Your task to perform on an android device: toggle notifications settings in the gmail app Image 0: 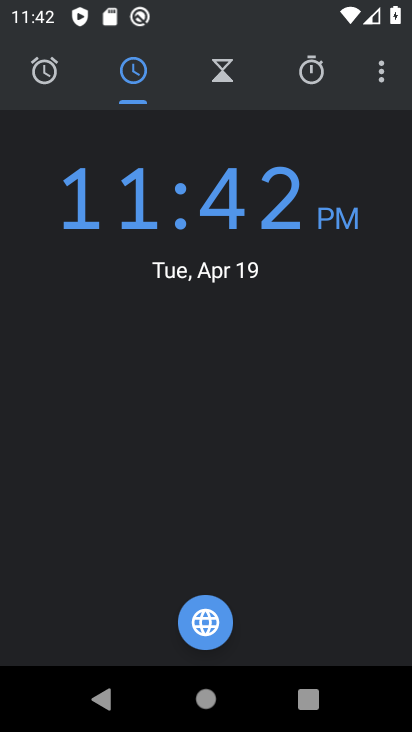
Step 0: press home button
Your task to perform on an android device: toggle notifications settings in the gmail app Image 1: 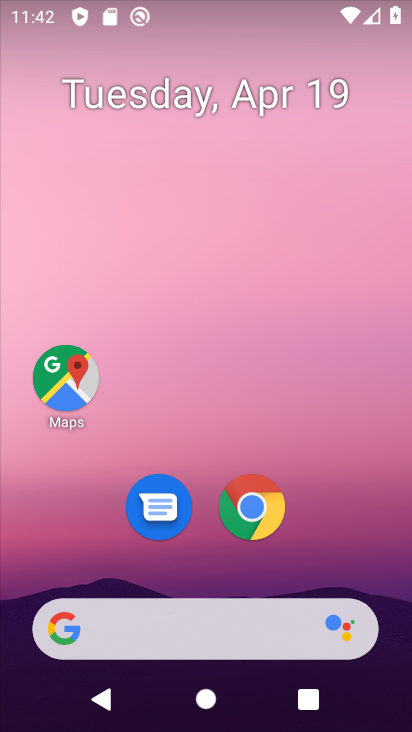
Step 1: drag from (338, 532) to (342, 173)
Your task to perform on an android device: toggle notifications settings in the gmail app Image 2: 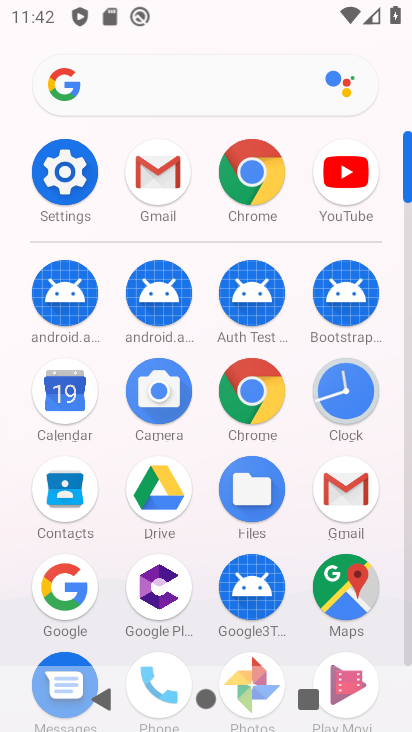
Step 2: click (354, 489)
Your task to perform on an android device: toggle notifications settings in the gmail app Image 3: 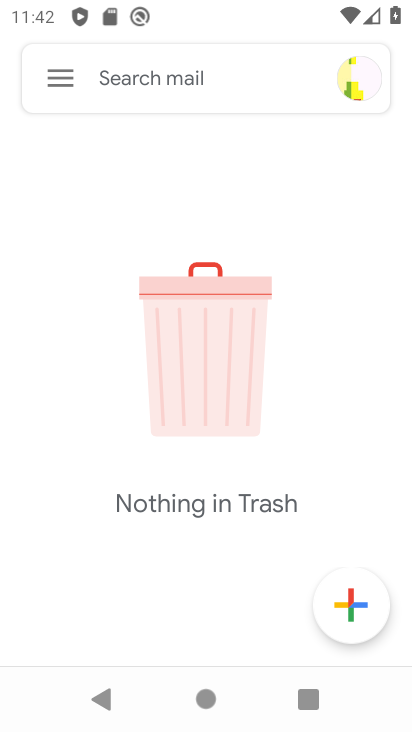
Step 3: click (59, 74)
Your task to perform on an android device: toggle notifications settings in the gmail app Image 4: 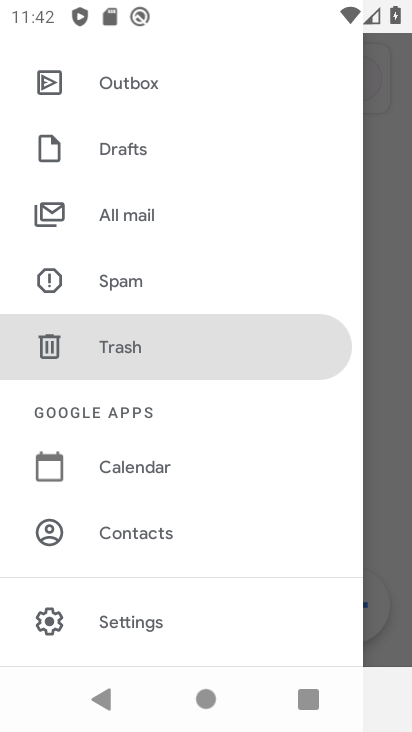
Step 4: click (137, 620)
Your task to perform on an android device: toggle notifications settings in the gmail app Image 5: 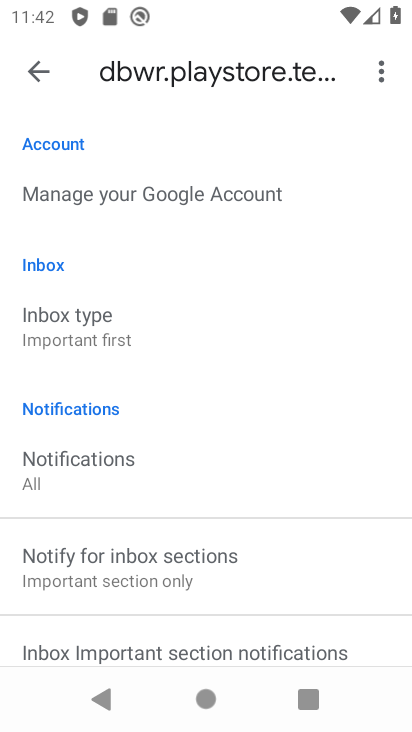
Step 5: click (75, 462)
Your task to perform on an android device: toggle notifications settings in the gmail app Image 6: 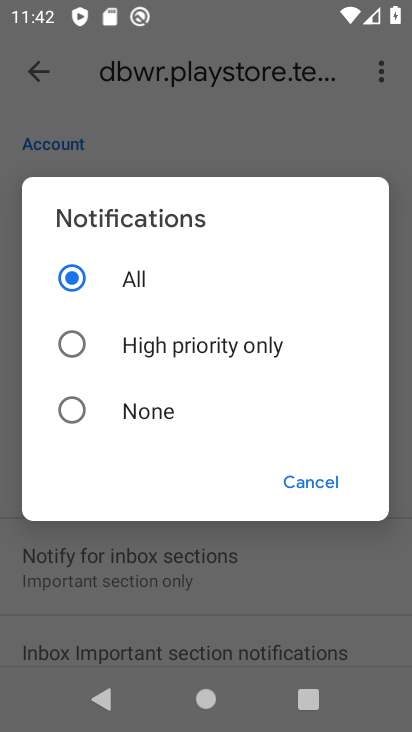
Step 6: click (162, 407)
Your task to perform on an android device: toggle notifications settings in the gmail app Image 7: 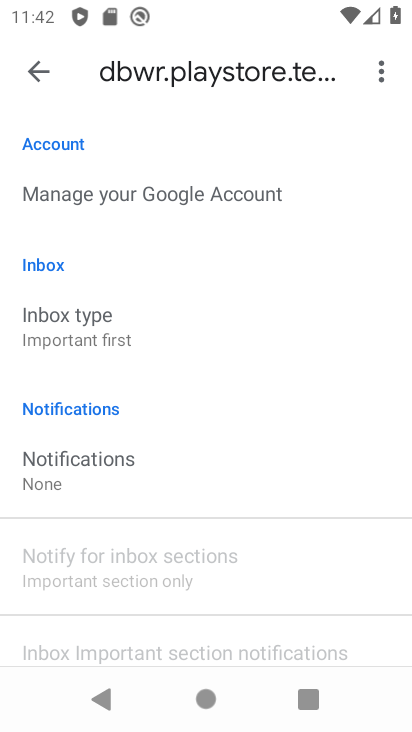
Step 7: task complete